Your task to perform on an android device: Clear the shopping cart on walmart.com. Image 0: 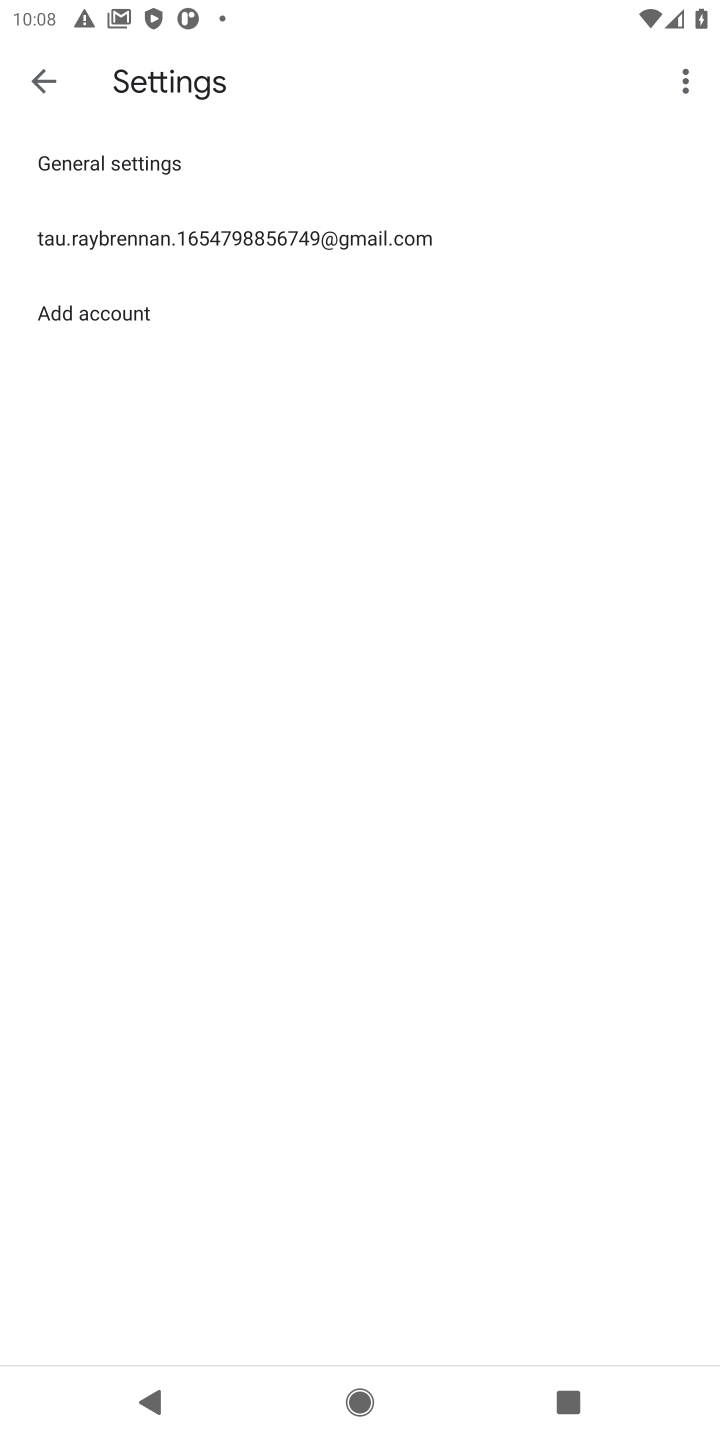
Step 0: press home button
Your task to perform on an android device: Clear the shopping cart on walmart.com. Image 1: 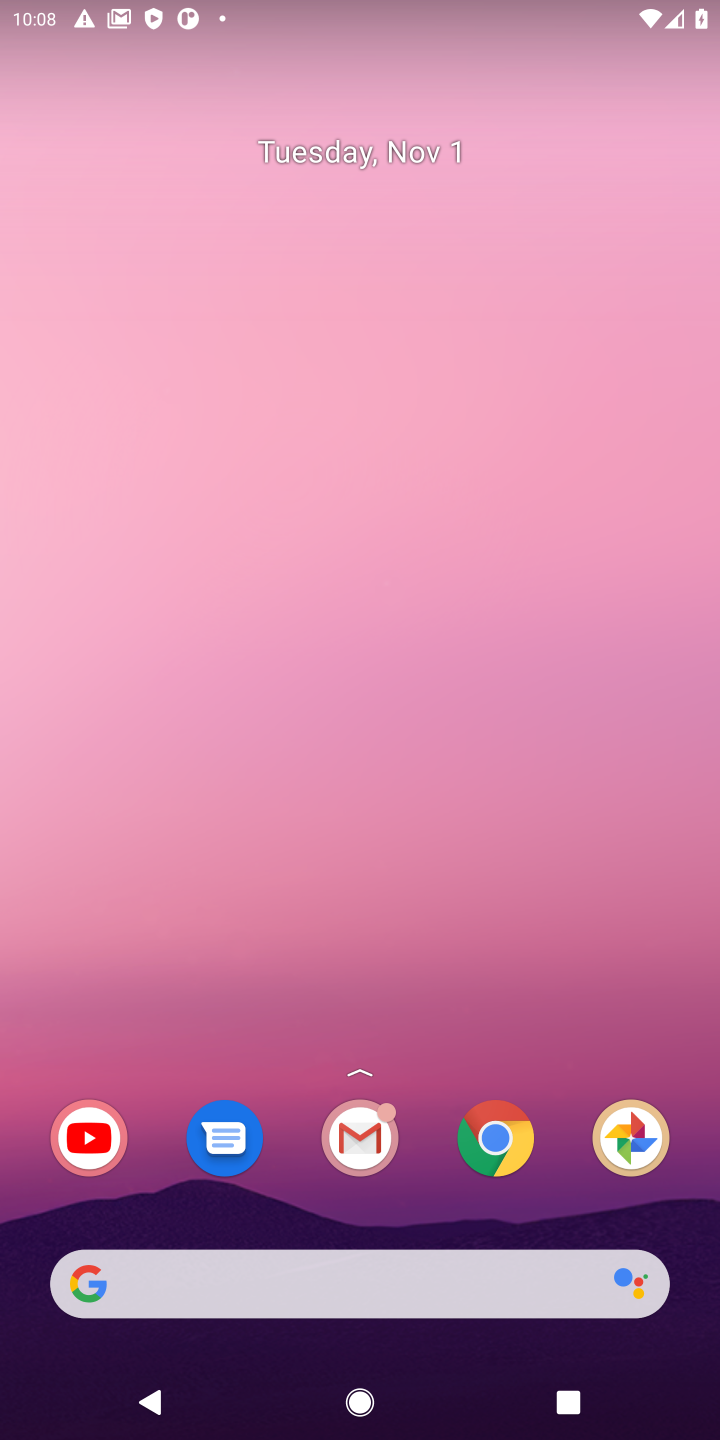
Step 1: click (501, 1152)
Your task to perform on an android device: Clear the shopping cart on walmart.com. Image 2: 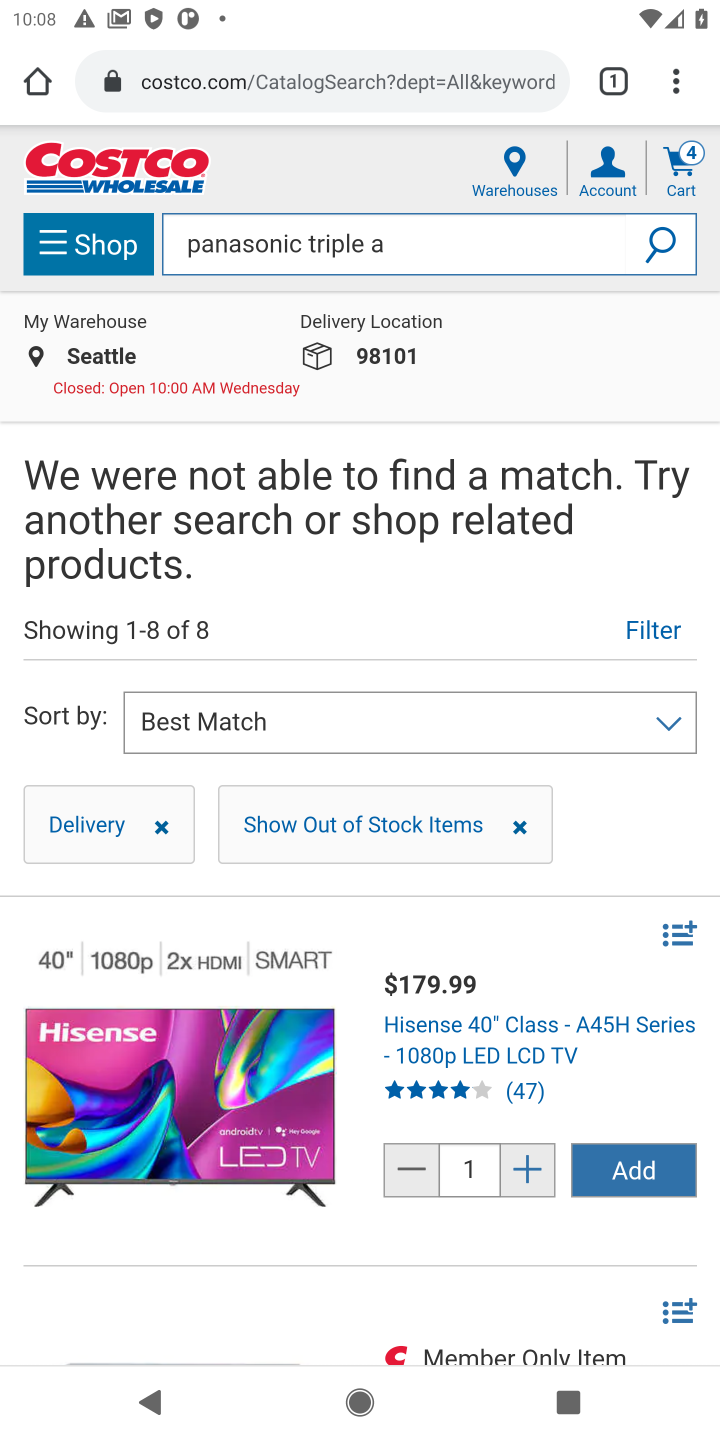
Step 2: click (273, 91)
Your task to perform on an android device: Clear the shopping cart on walmart.com. Image 3: 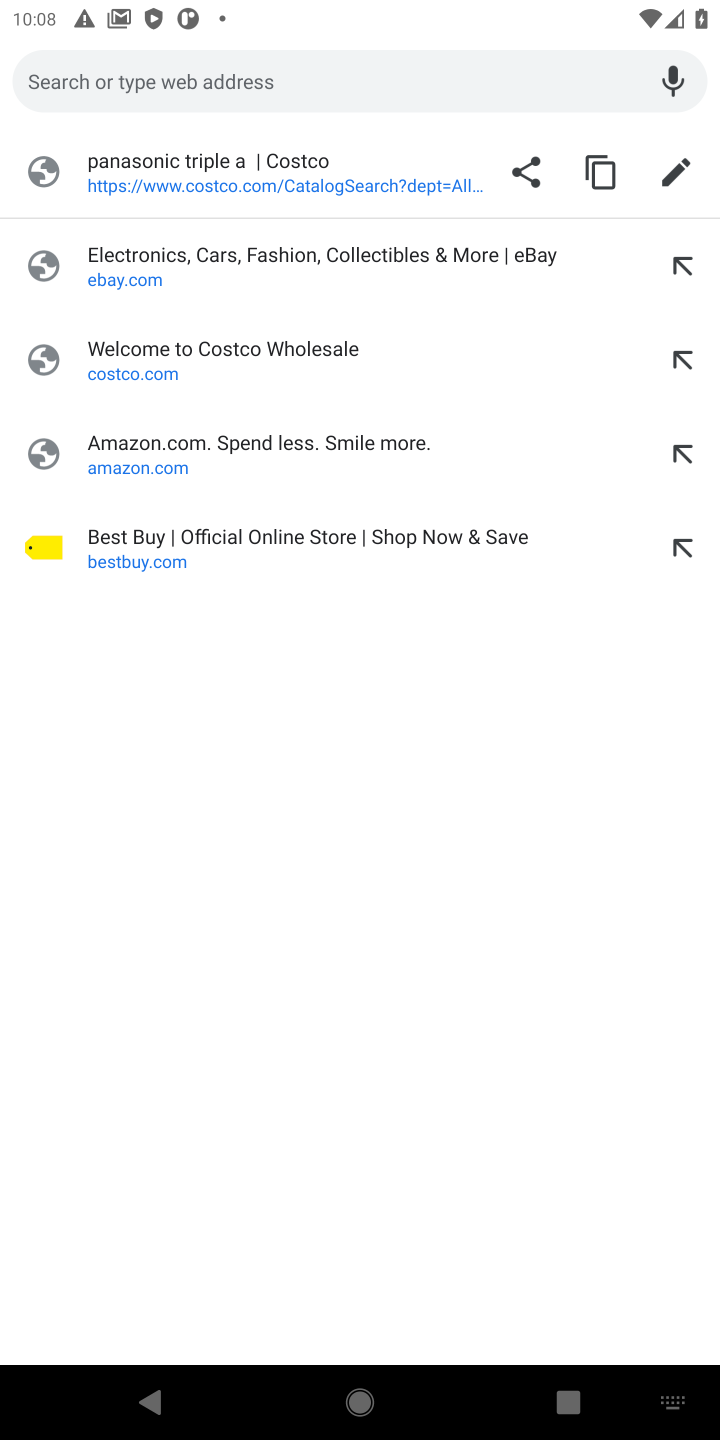
Step 3: type "walmart.com"
Your task to perform on an android device: Clear the shopping cart on walmart.com. Image 4: 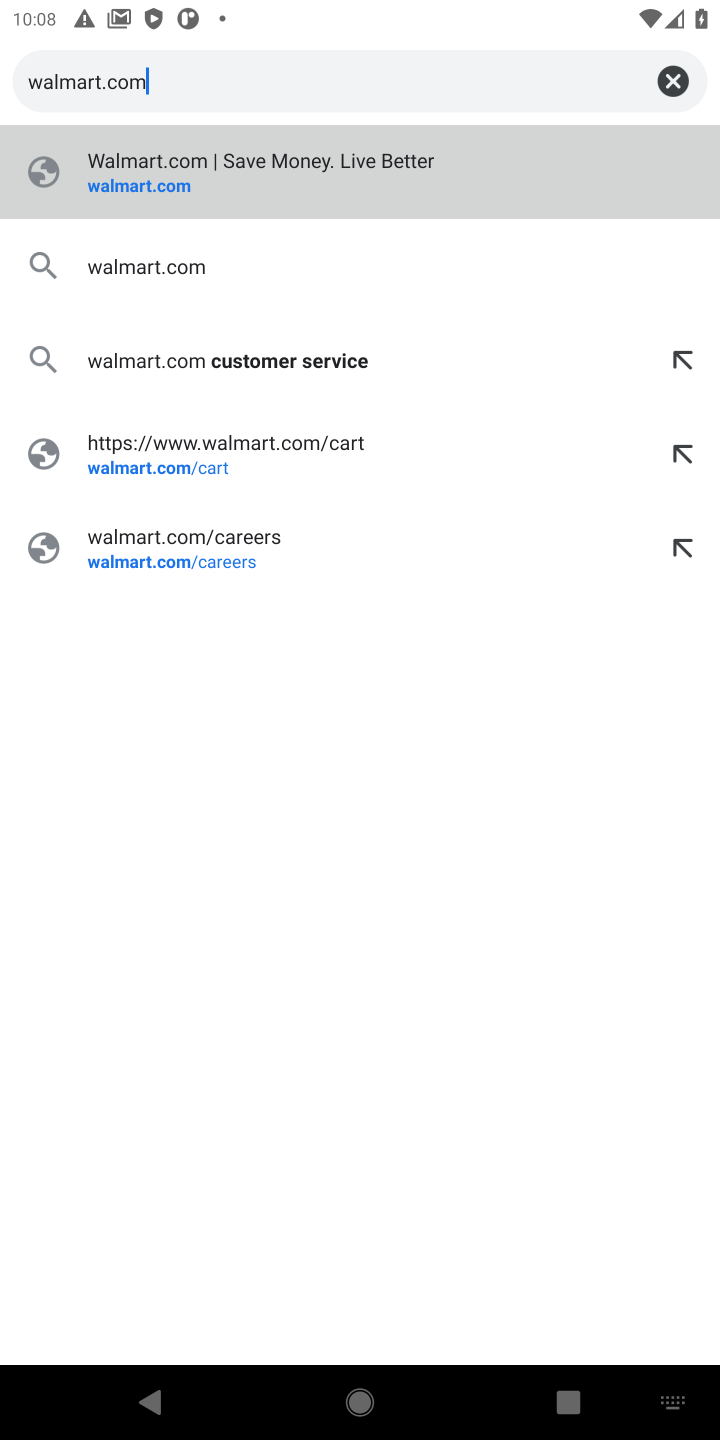
Step 4: click (121, 196)
Your task to perform on an android device: Clear the shopping cart on walmart.com. Image 5: 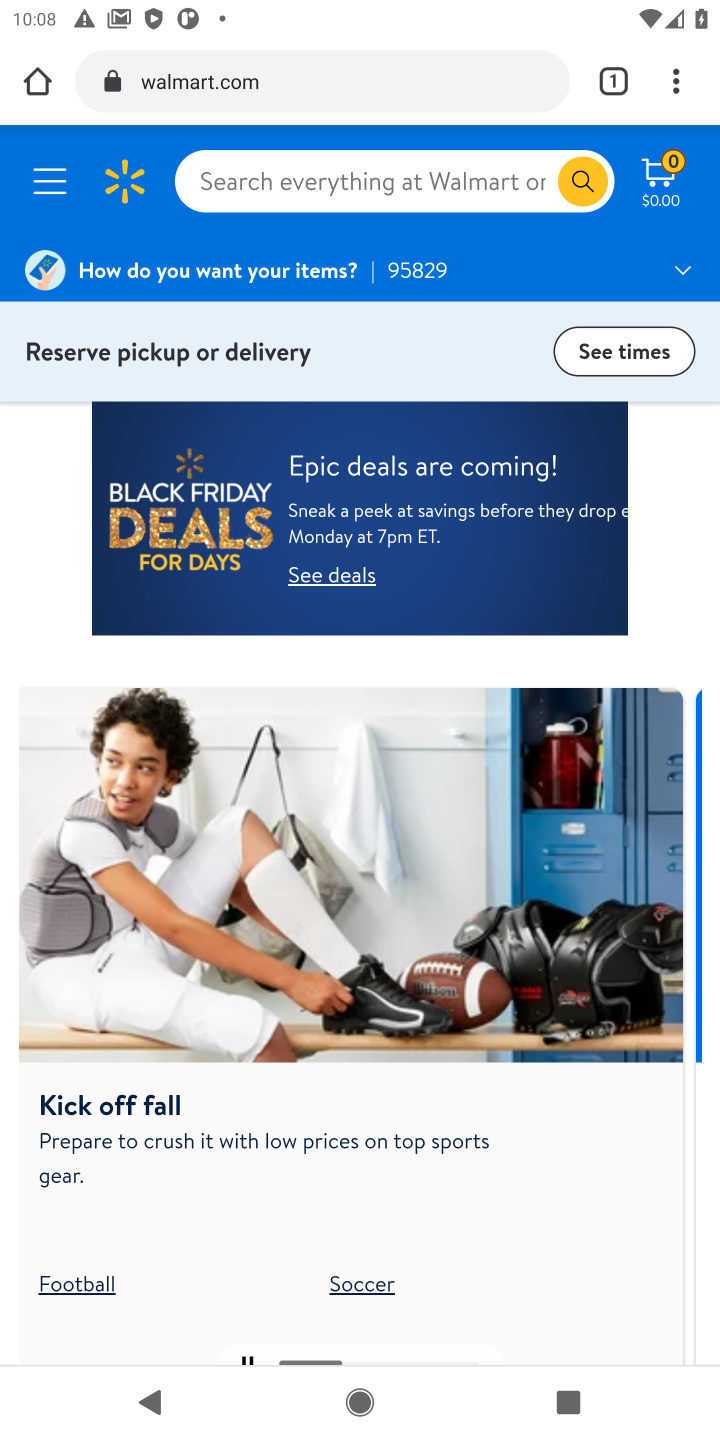
Step 5: click (659, 190)
Your task to perform on an android device: Clear the shopping cart on walmart.com. Image 6: 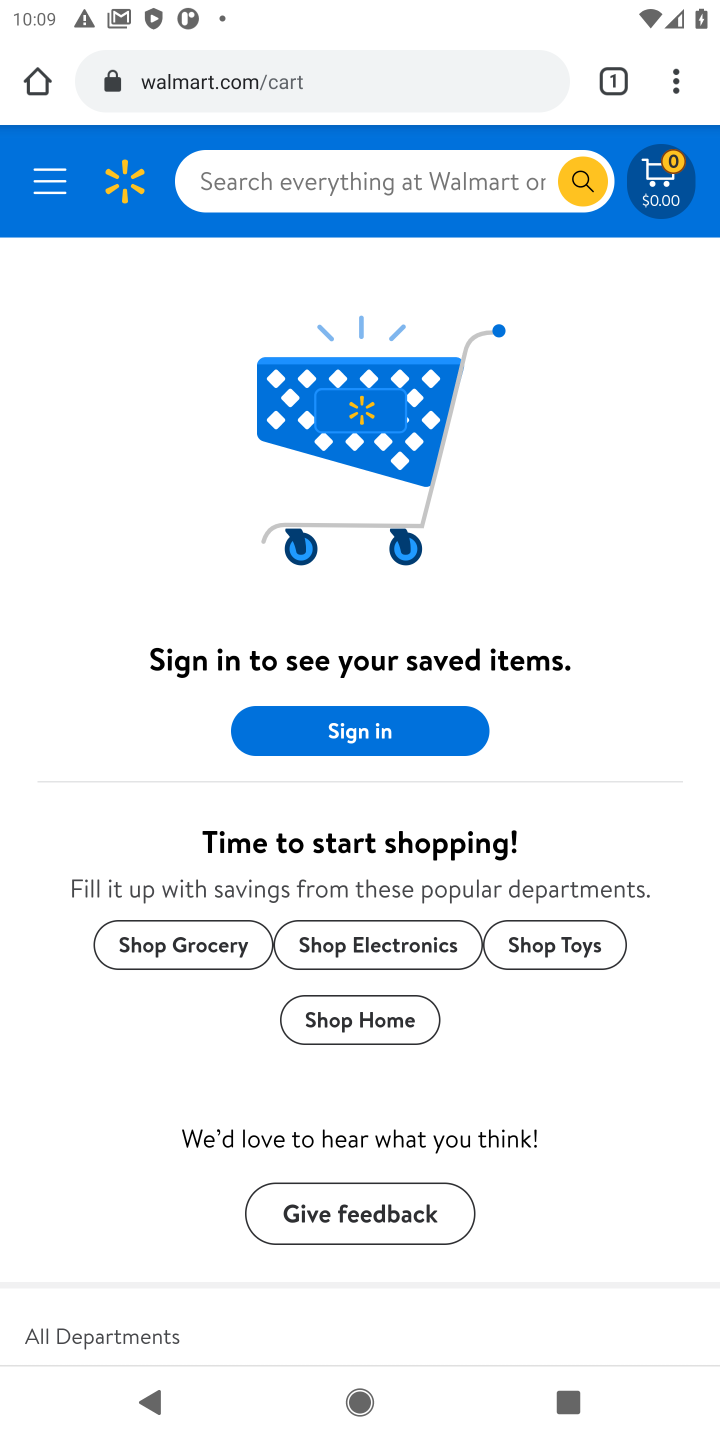
Step 6: task complete